Your task to perform on an android device: find which apps use the phone's location Image 0: 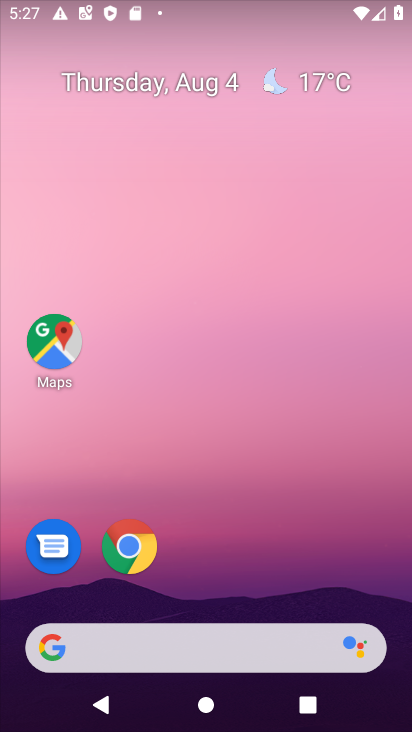
Step 0: drag from (197, 497) to (261, 5)
Your task to perform on an android device: find which apps use the phone's location Image 1: 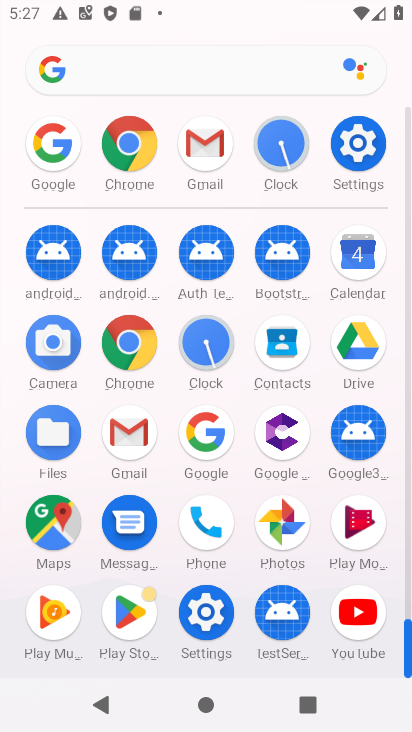
Step 1: click (352, 143)
Your task to perform on an android device: find which apps use the phone's location Image 2: 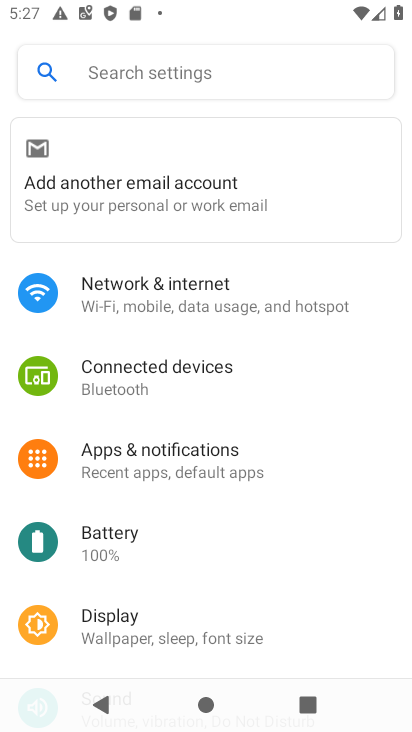
Step 2: drag from (167, 573) to (201, 244)
Your task to perform on an android device: find which apps use the phone's location Image 3: 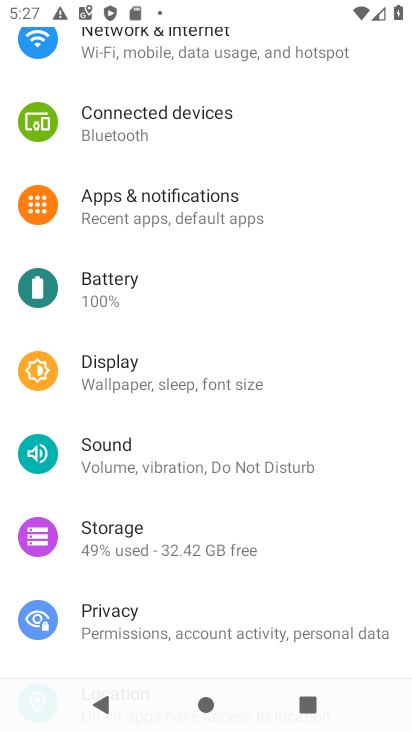
Step 3: drag from (188, 555) to (212, 273)
Your task to perform on an android device: find which apps use the phone's location Image 4: 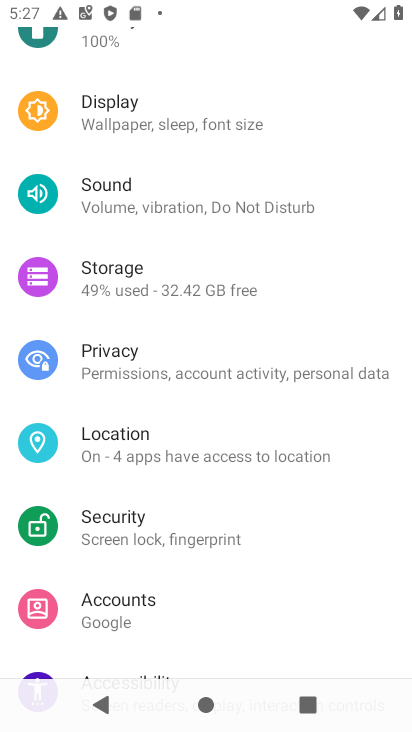
Step 4: click (151, 516)
Your task to perform on an android device: find which apps use the phone's location Image 5: 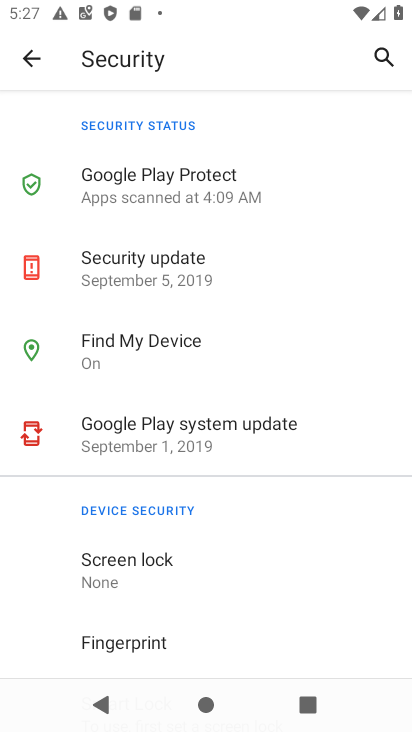
Step 5: press back button
Your task to perform on an android device: find which apps use the phone's location Image 6: 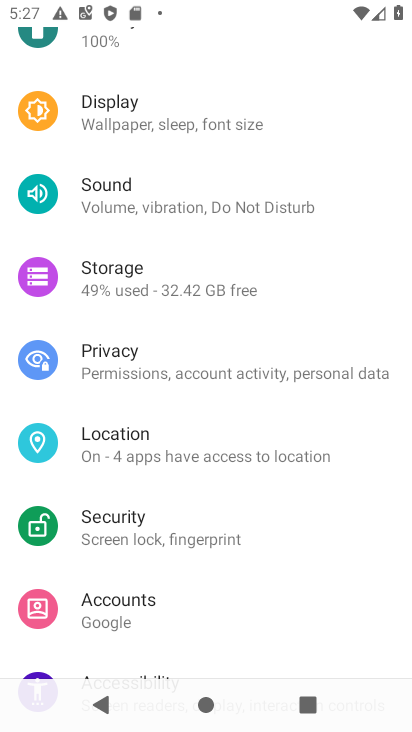
Step 6: click (126, 438)
Your task to perform on an android device: find which apps use the phone's location Image 7: 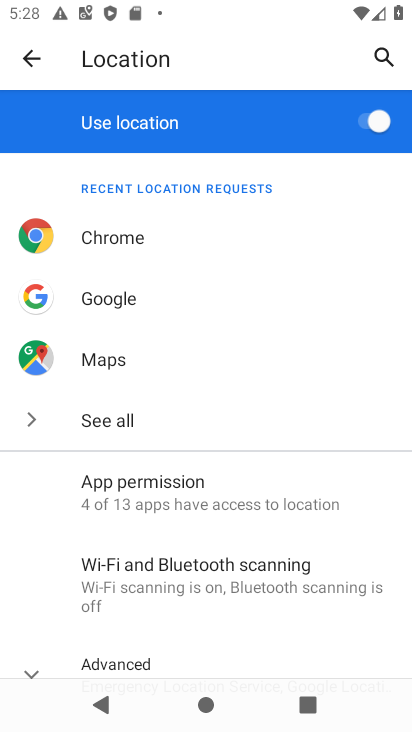
Step 7: drag from (209, 554) to (229, 322)
Your task to perform on an android device: find which apps use the phone's location Image 8: 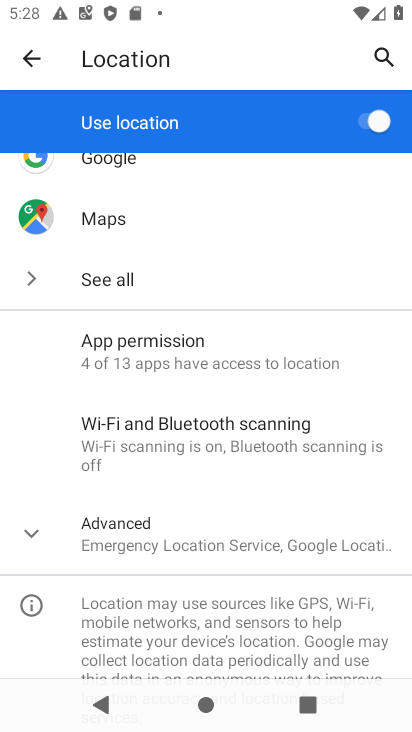
Step 8: click (99, 528)
Your task to perform on an android device: find which apps use the phone's location Image 9: 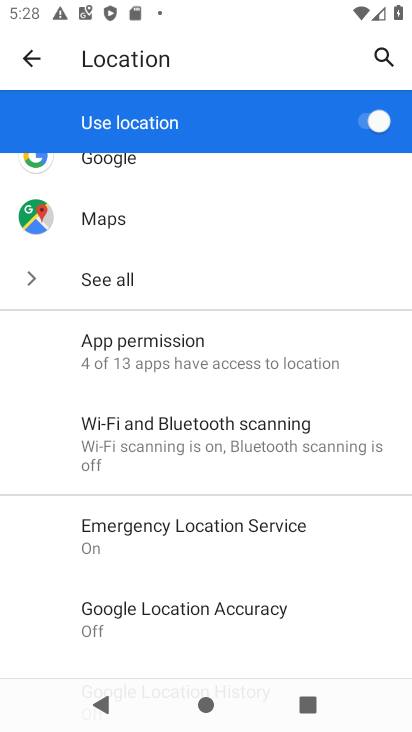
Step 9: click (123, 349)
Your task to perform on an android device: find which apps use the phone's location Image 10: 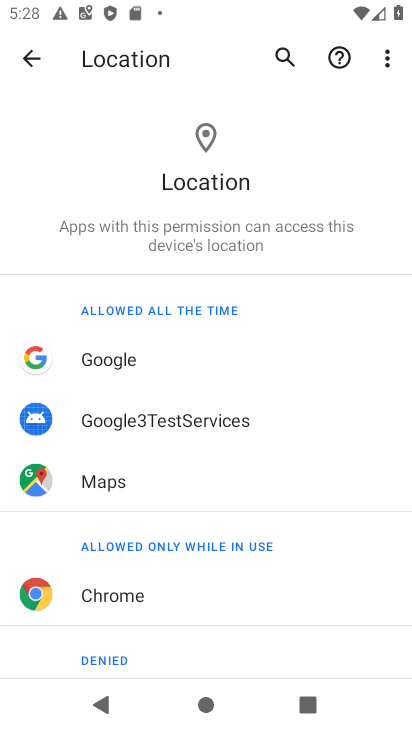
Step 10: task complete